Your task to perform on an android device: turn on notifications settings in the gmail app Image 0: 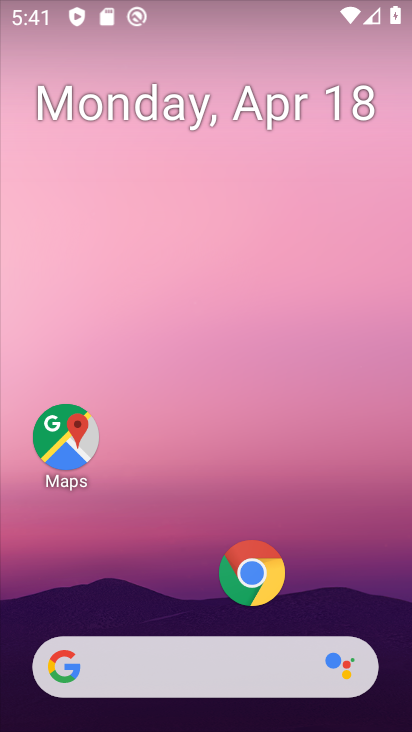
Step 0: drag from (159, 608) to (322, 15)
Your task to perform on an android device: turn on notifications settings in the gmail app Image 1: 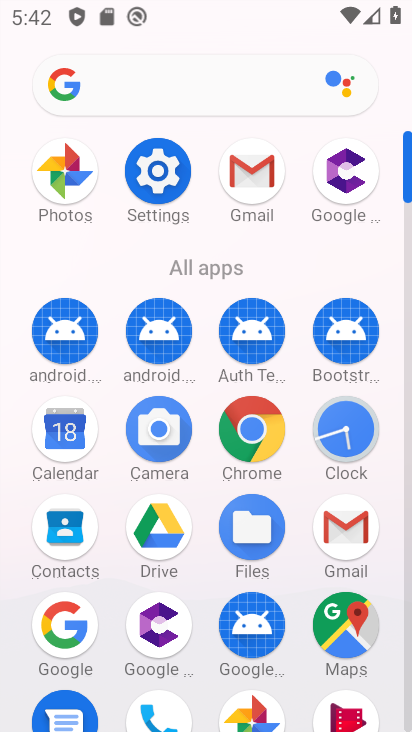
Step 1: drag from (200, 642) to (211, 483)
Your task to perform on an android device: turn on notifications settings in the gmail app Image 2: 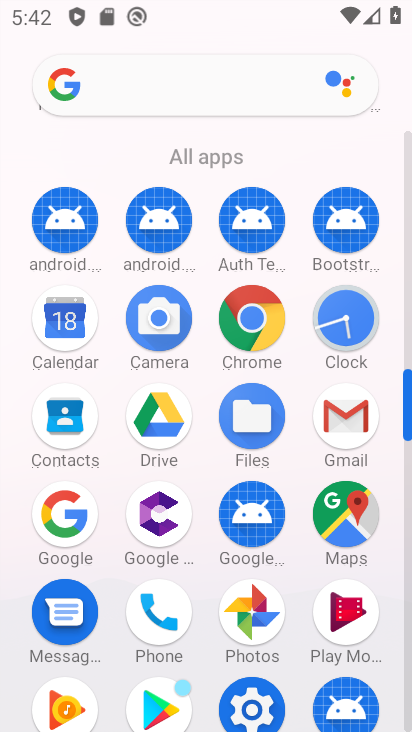
Step 2: click (346, 420)
Your task to perform on an android device: turn on notifications settings in the gmail app Image 3: 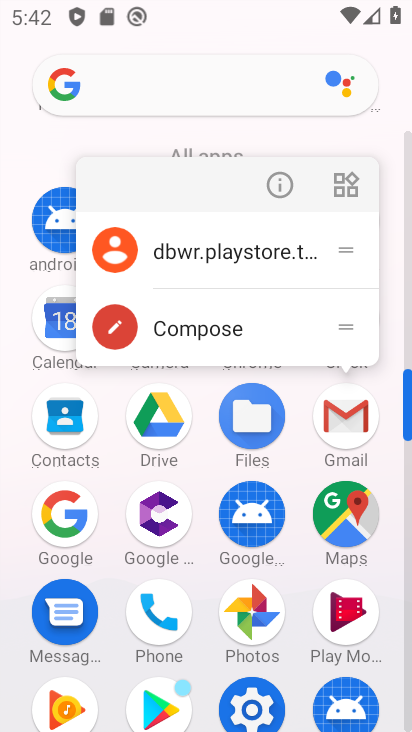
Step 3: click (346, 420)
Your task to perform on an android device: turn on notifications settings in the gmail app Image 4: 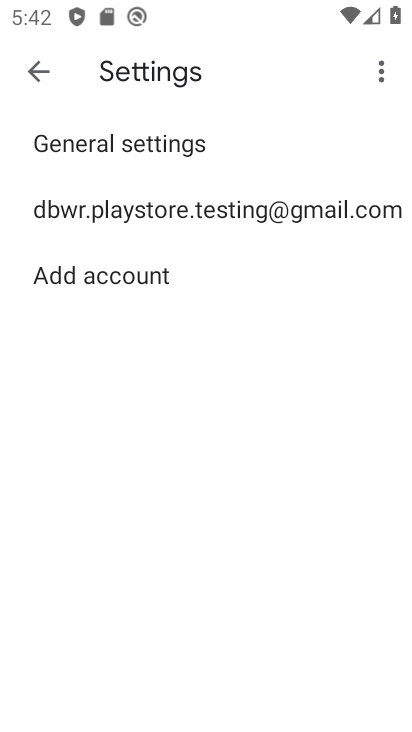
Step 4: click (175, 136)
Your task to perform on an android device: turn on notifications settings in the gmail app Image 5: 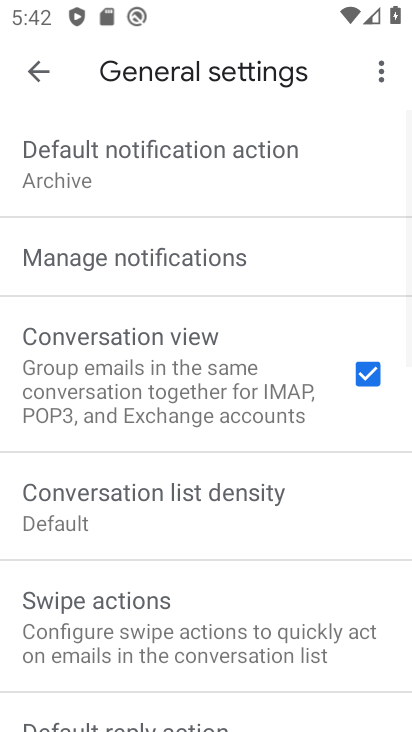
Step 5: click (145, 267)
Your task to perform on an android device: turn on notifications settings in the gmail app Image 6: 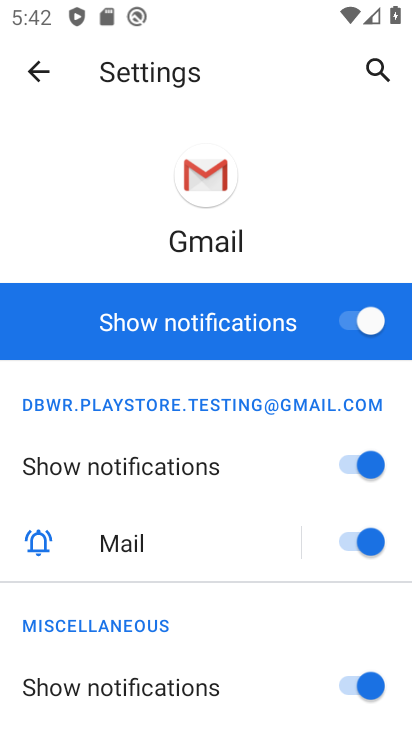
Step 6: task complete